Your task to perform on an android device: Go to Yahoo.com Image 0: 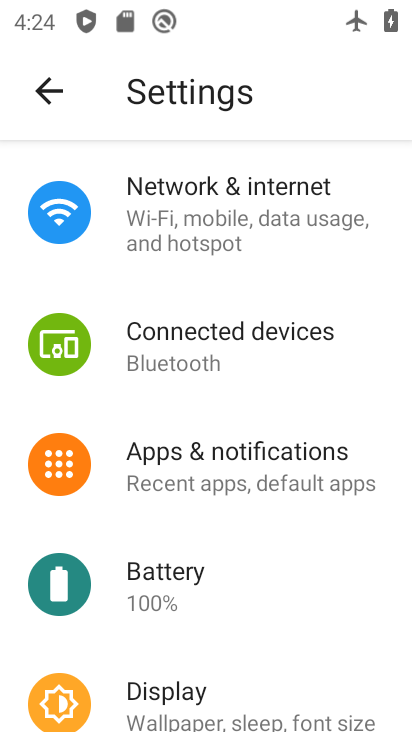
Step 0: press home button
Your task to perform on an android device: Go to Yahoo.com Image 1: 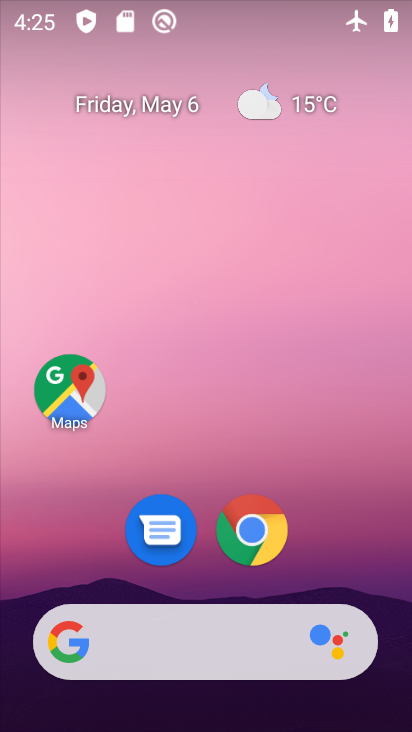
Step 1: drag from (388, 461) to (330, 0)
Your task to perform on an android device: Go to Yahoo.com Image 2: 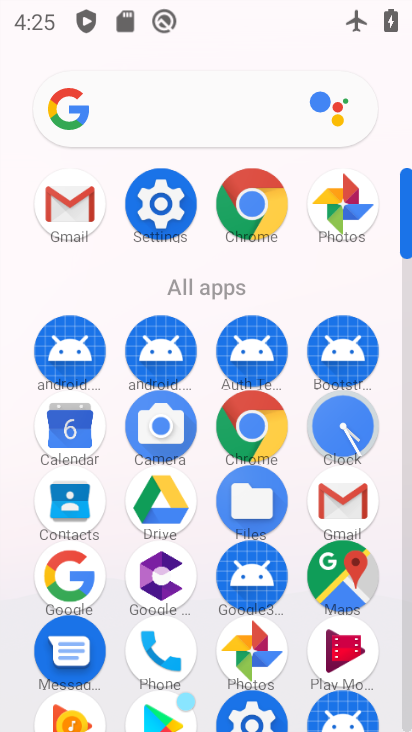
Step 2: click (233, 215)
Your task to perform on an android device: Go to Yahoo.com Image 3: 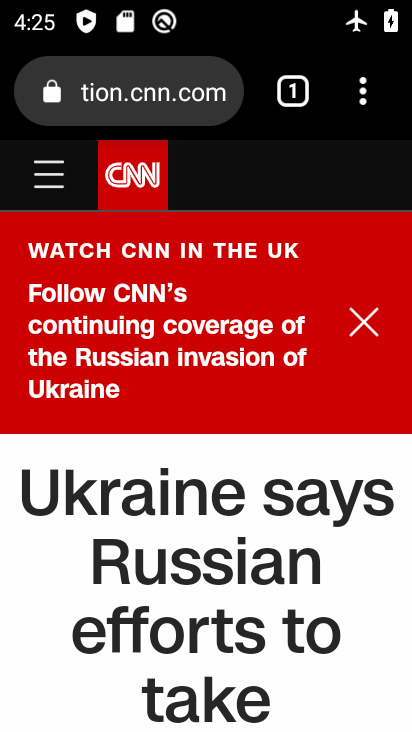
Step 3: click (123, 98)
Your task to perform on an android device: Go to Yahoo.com Image 4: 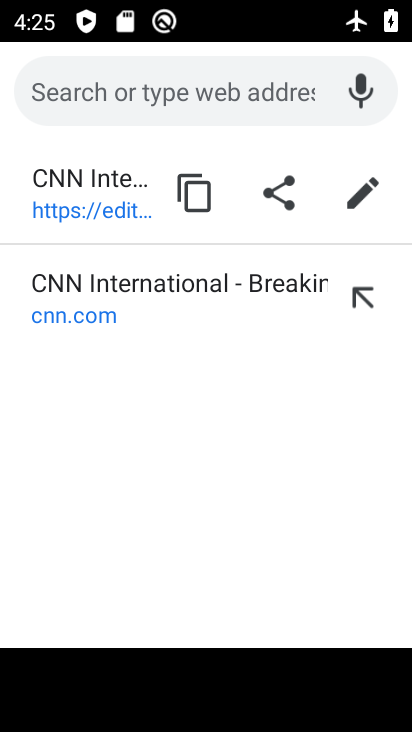
Step 4: type "yahoo.com"
Your task to perform on an android device: Go to Yahoo.com Image 5: 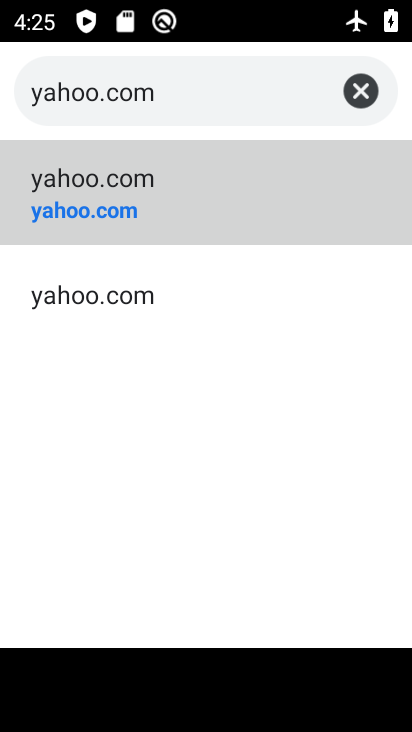
Step 5: click (85, 200)
Your task to perform on an android device: Go to Yahoo.com Image 6: 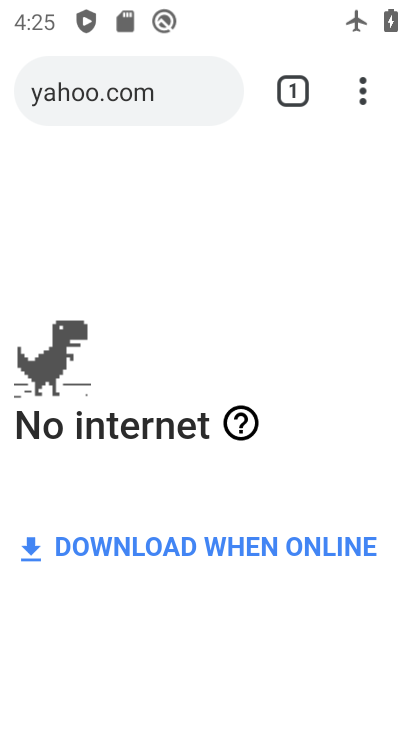
Step 6: task complete